Your task to perform on an android device: Open calendar and show me the second week of next month Image 0: 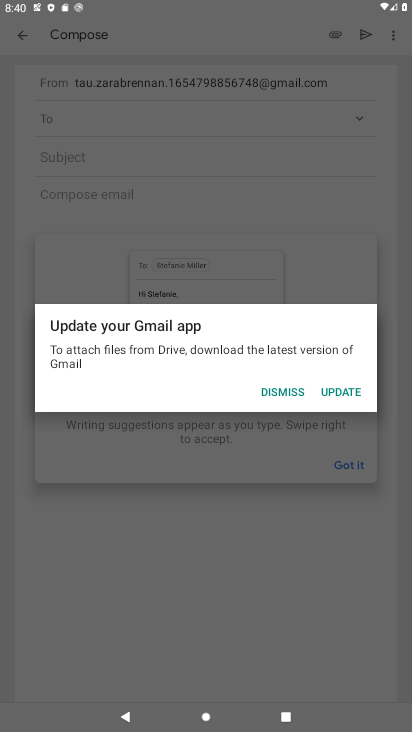
Step 0: press home button
Your task to perform on an android device: Open calendar and show me the second week of next month Image 1: 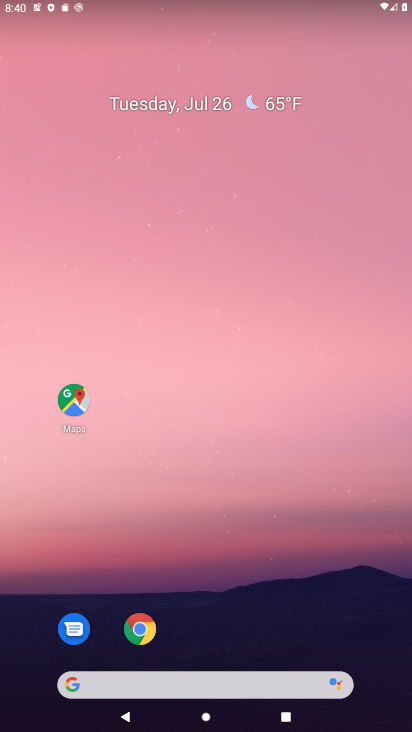
Step 1: drag from (280, 606) to (259, 115)
Your task to perform on an android device: Open calendar and show me the second week of next month Image 2: 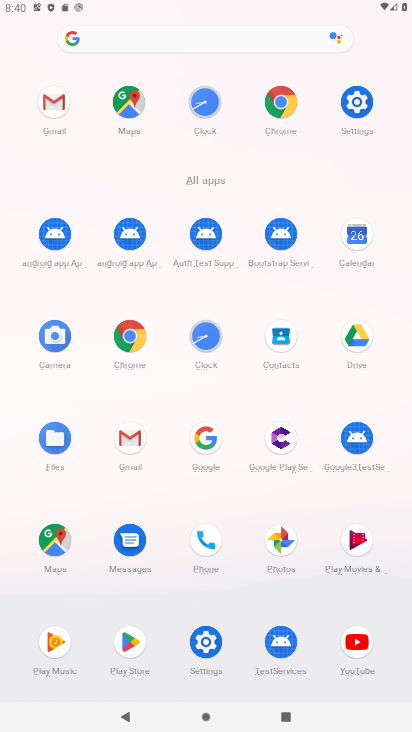
Step 2: click (358, 253)
Your task to perform on an android device: Open calendar and show me the second week of next month Image 3: 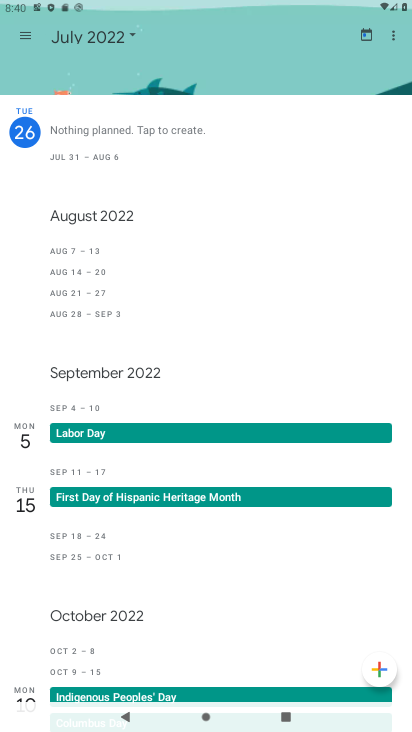
Step 3: click (115, 40)
Your task to perform on an android device: Open calendar and show me the second week of next month Image 4: 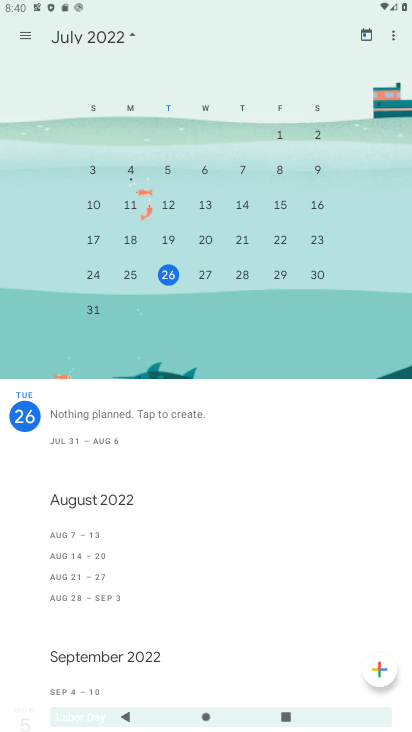
Step 4: drag from (379, 186) to (72, 158)
Your task to perform on an android device: Open calendar and show me the second week of next month Image 5: 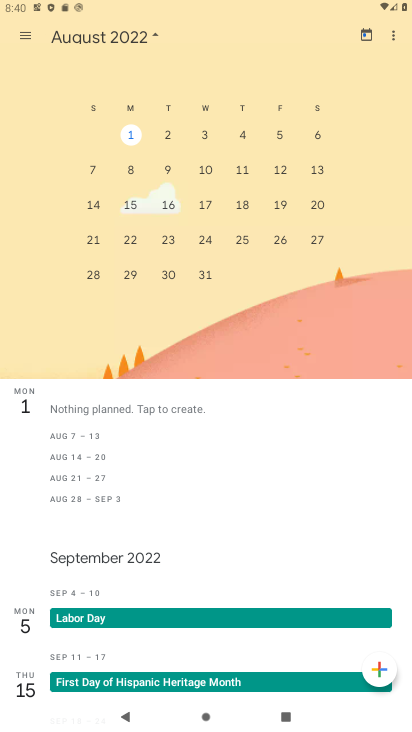
Step 5: click (105, 165)
Your task to perform on an android device: Open calendar and show me the second week of next month Image 6: 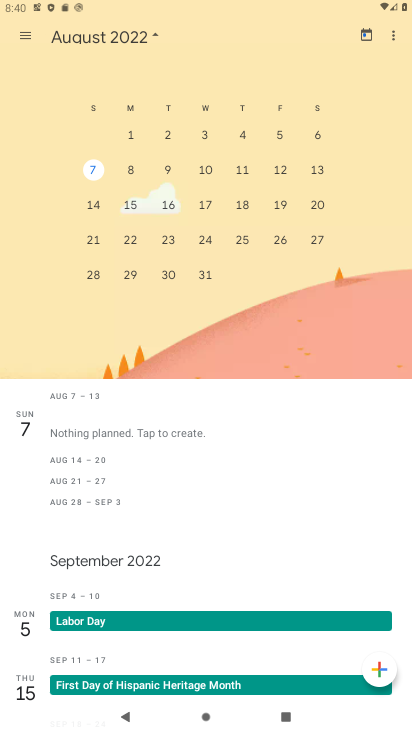
Step 6: task complete